Your task to perform on an android device: change your default location settings in chrome Image 0: 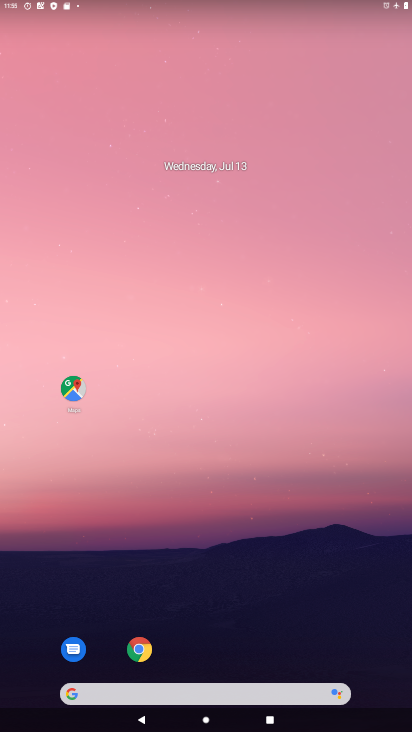
Step 0: click (140, 651)
Your task to perform on an android device: change your default location settings in chrome Image 1: 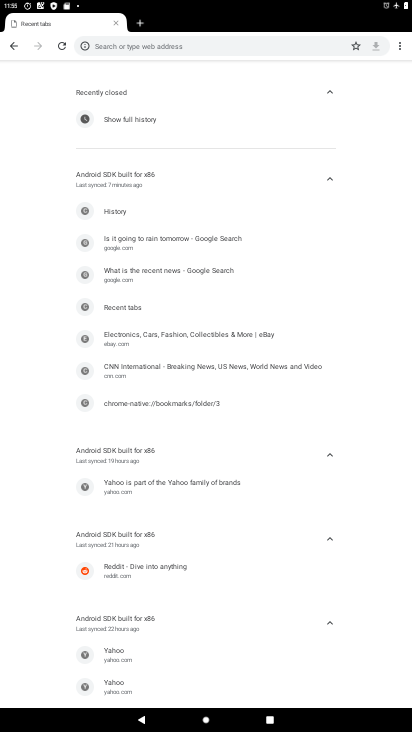
Step 1: click (401, 44)
Your task to perform on an android device: change your default location settings in chrome Image 2: 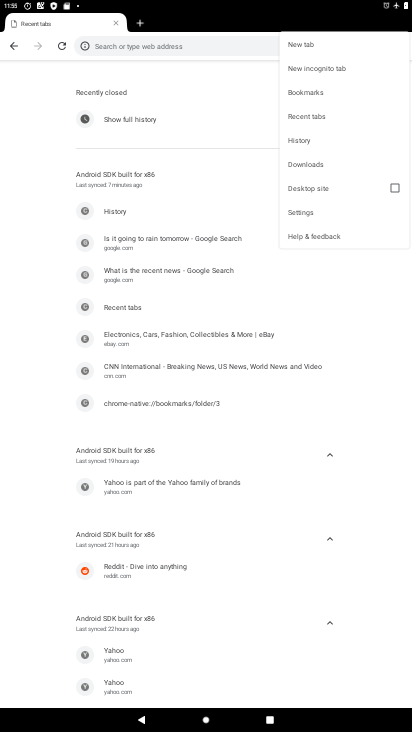
Step 2: click (306, 211)
Your task to perform on an android device: change your default location settings in chrome Image 3: 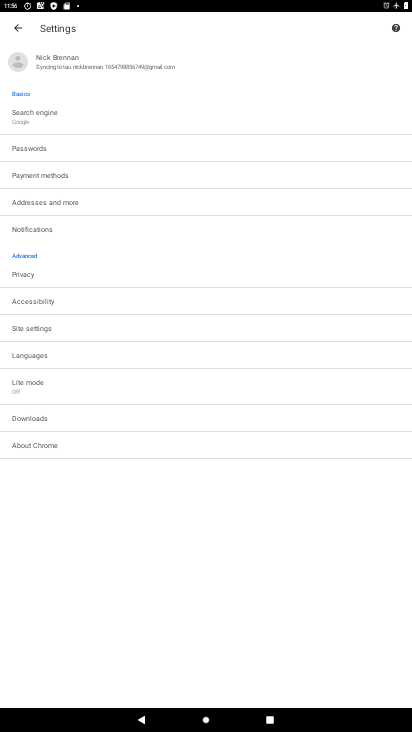
Step 3: click (47, 331)
Your task to perform on an android device: change your default location settings in chrome Image 4: 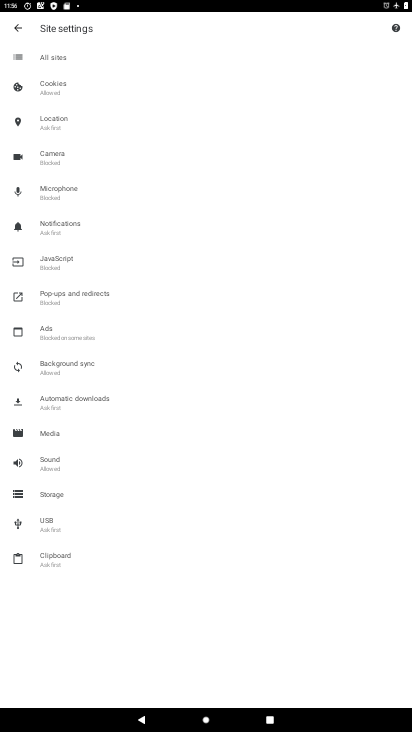
Step 4: click (56, 128)
Your task to perform on an android device: change your default location settings in chrome Image 5: 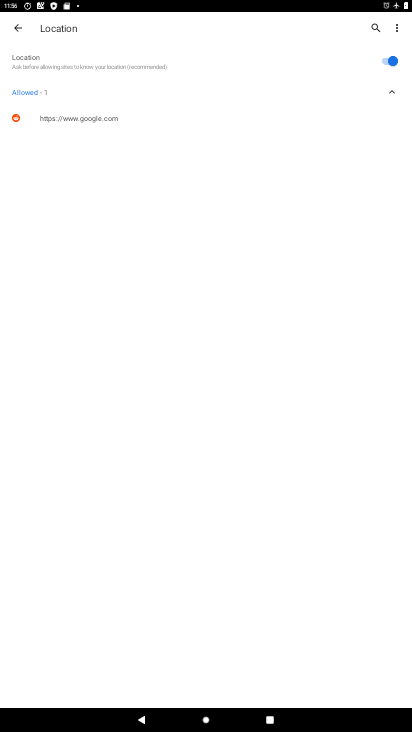
Step 5: click (385, 58)
Your task to perform on an android device: change your default location settings in chrome Image 6: 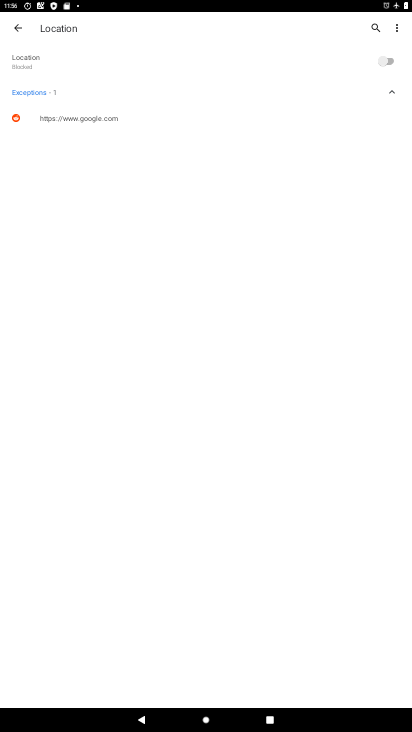
Step 6: task complete